Your task to perform on an android device: set the stopwatch Image 0: 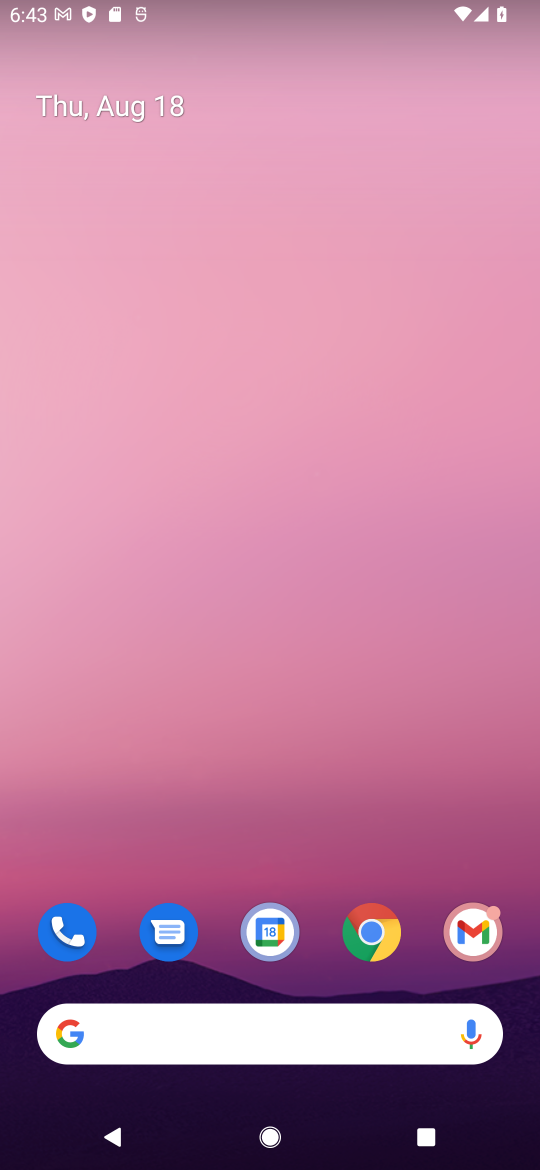
Step 0: drag from (307, 836) to (342, 145)
Your task to perform on an android device: set the stopwatch Image 1: 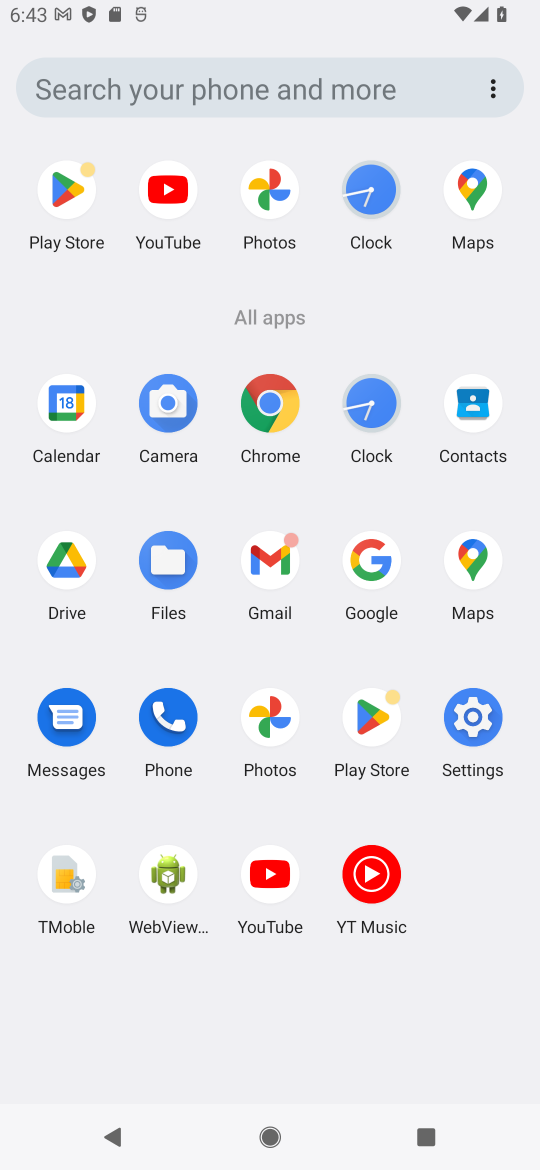
Step 1: click (364, 402)
Your task to perform on an android device: set the stopwatch Image 2: 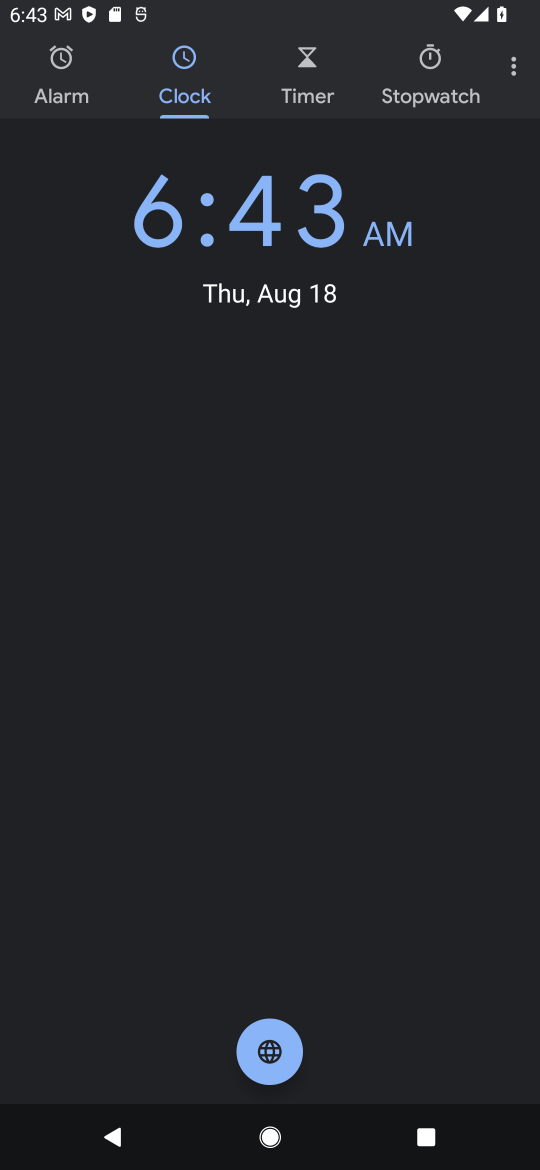
Step 2: click (421, 82)
Your task to perform on an android device: set the stopwatch Image 3: 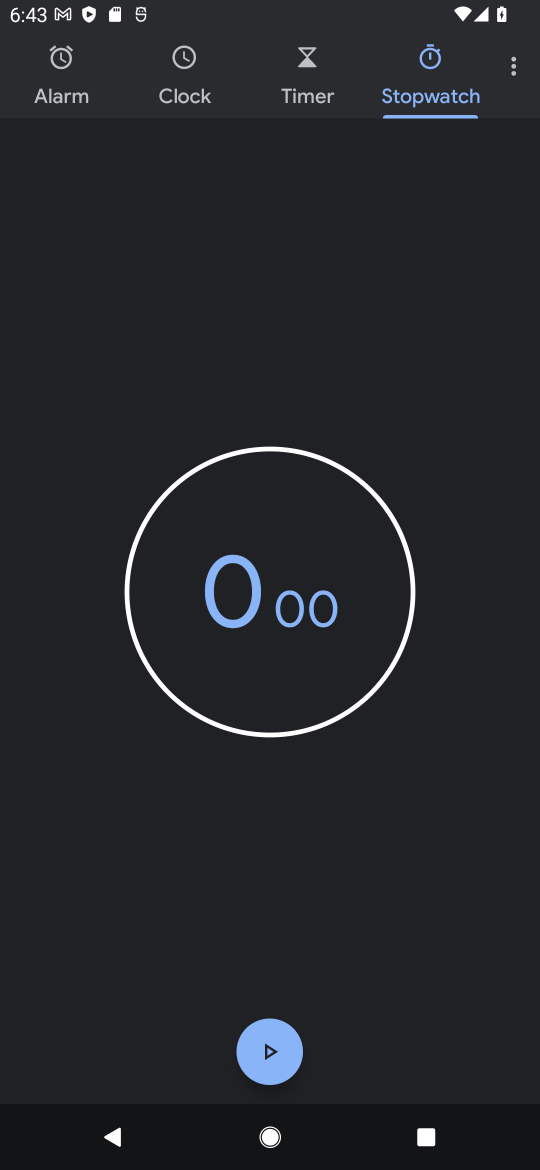
Step 3: click (267, 1062)
Your task to perform on an android device: set the stopwatch Image 4: 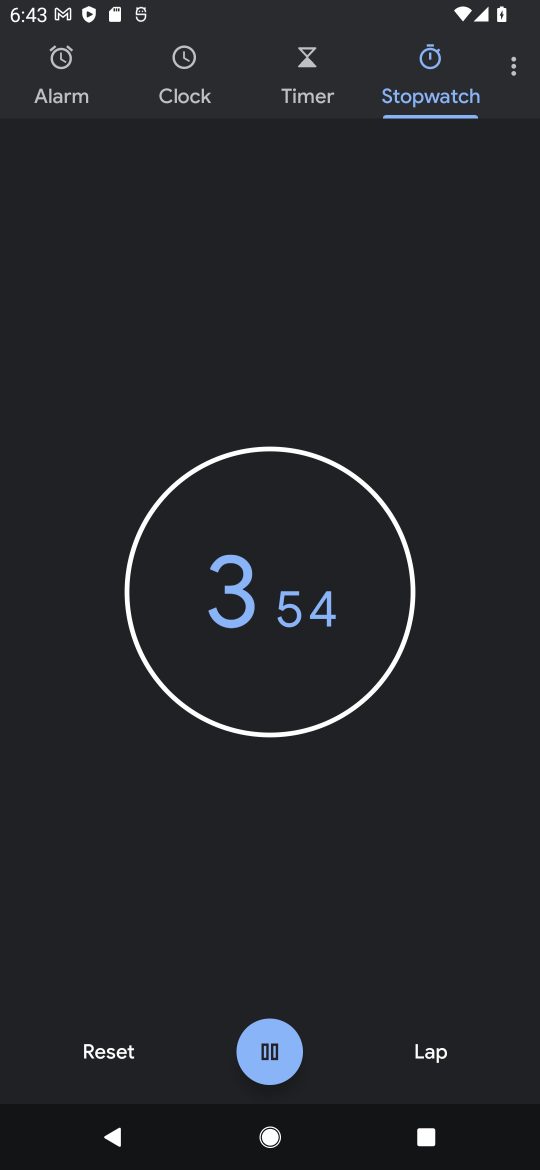
Step 4: task complete